Your task to perform on an android device: see creations saved in the google photos Image 0: 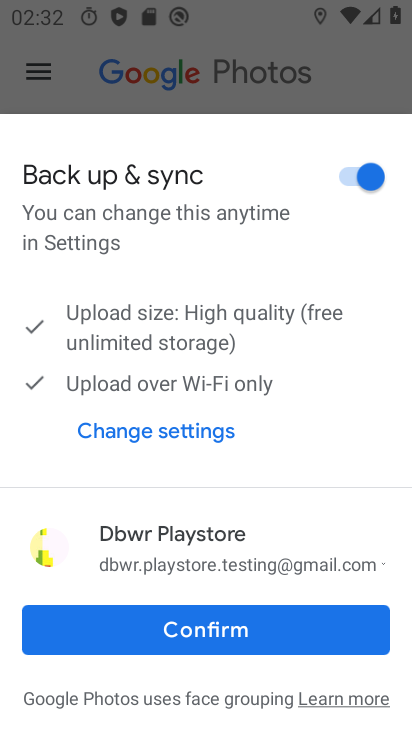
Step 0: press home button
Your task to perform on an android device: see creations saved in the google photos Image 1: 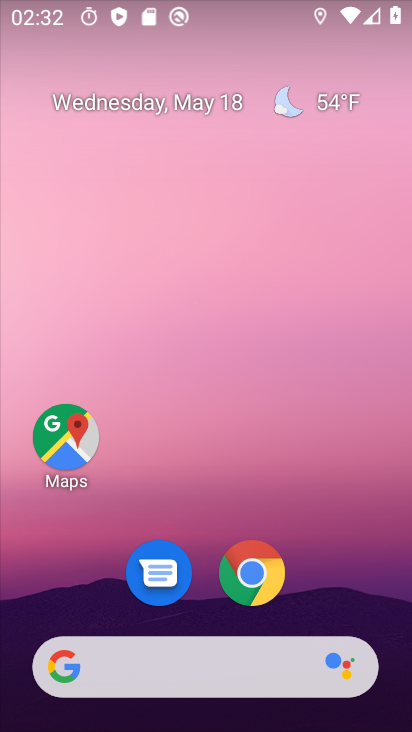
Step 1: drag from (204, 603) to (204, 257)
Your task to perform on an android device: see creations saved in the google photos Image 2: 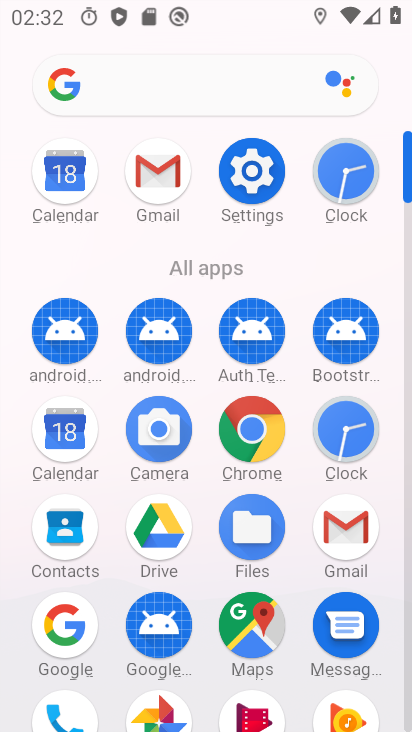
Step 2: drag from (196, 575) to (203, 375)
Your task to perform on an android device: see creations saved in the google photos Image 3: 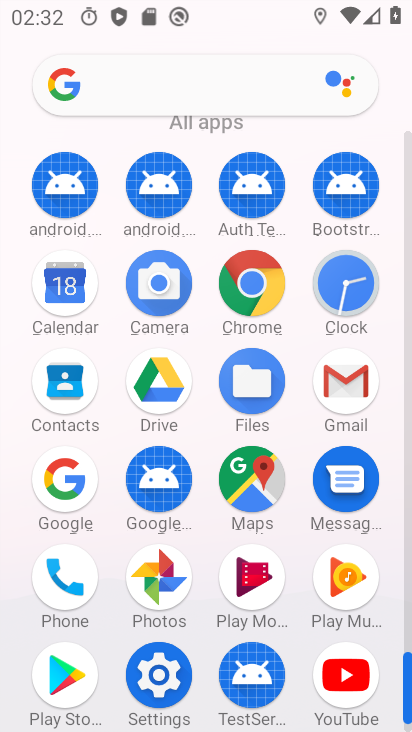
Step 3: click (144, 583)
Your task to perform on an android device: see creations saved in the google photos Image 4: 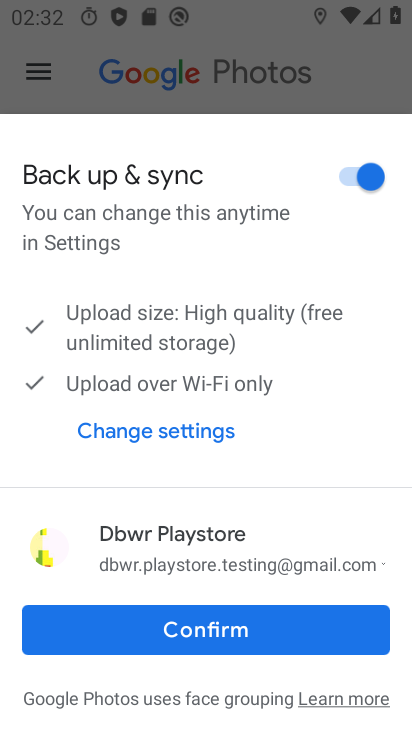
Step 4: click (187, 617)
Your task to perform on an android device: see creations saved in the google photos Image 5: 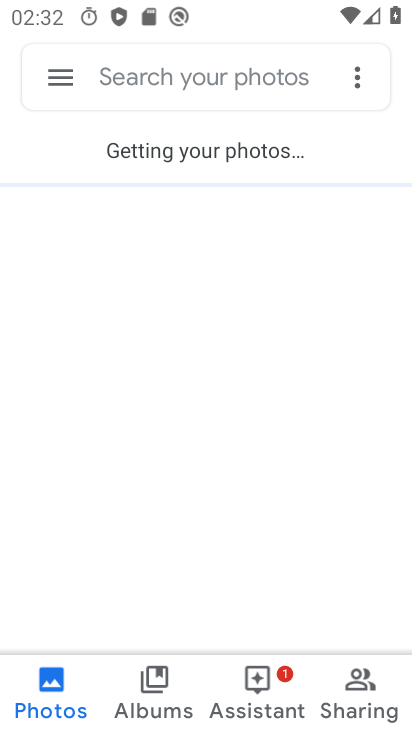
Step 5: click (194, 76)
Your task to perform on an android device: see creations saved in the google photos Image 6: 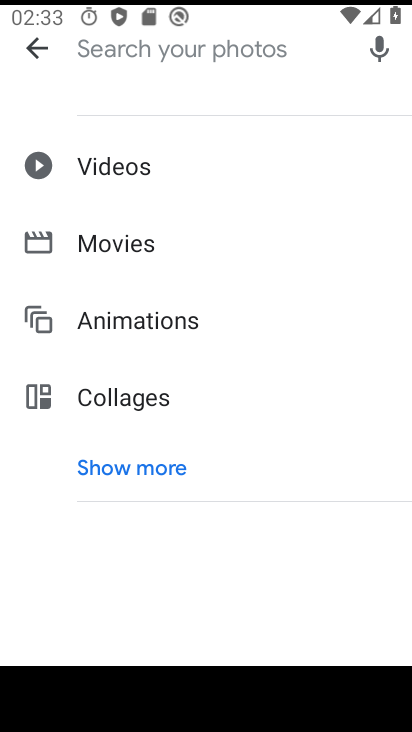
Step 6: click (144, 466)
Your task to perform on an android device: see creations saved in the google photos Image 7: 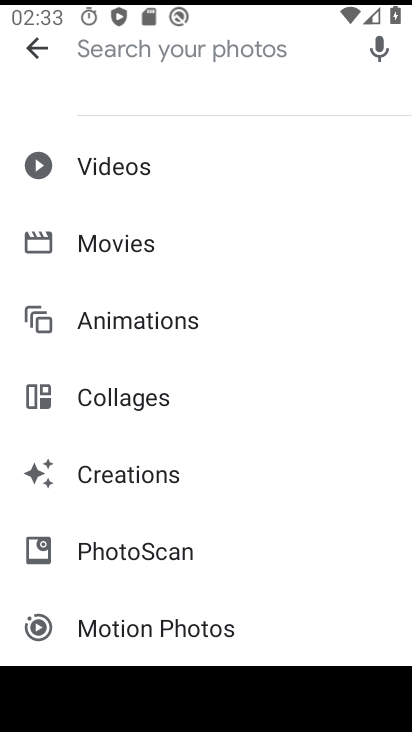
Step 7: click (145, 467)
Your task to perform on an android device: see creations saved in the google photos Image 8: 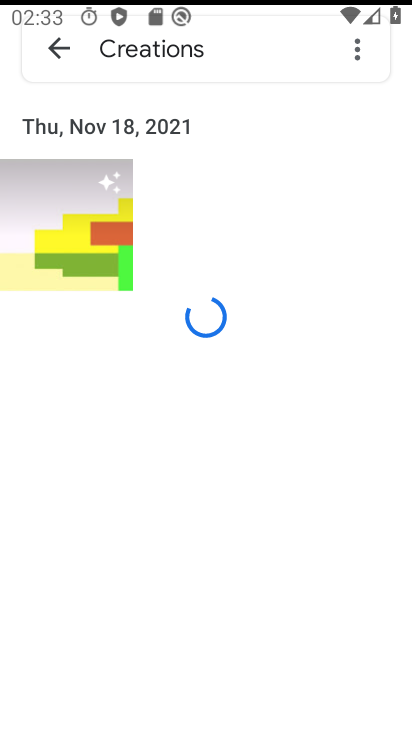
Step 8: task complete